Your task to perform on an android device: turn on sleep mode Image 0: 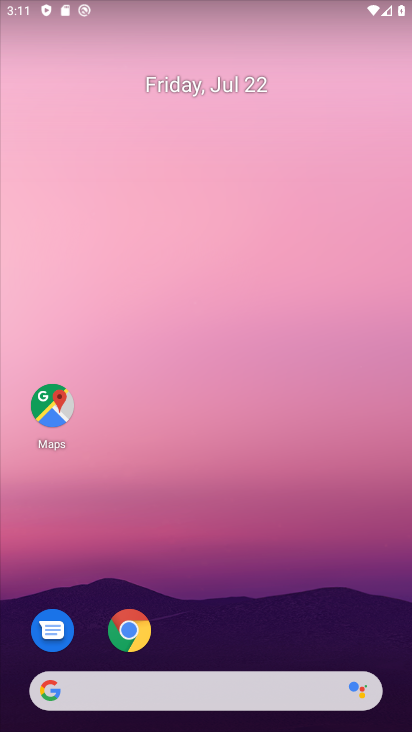
Step 0: drag from (269, 640) to (219, 87)
Your task to perform on an android device: turn on sleep mode Image 1: 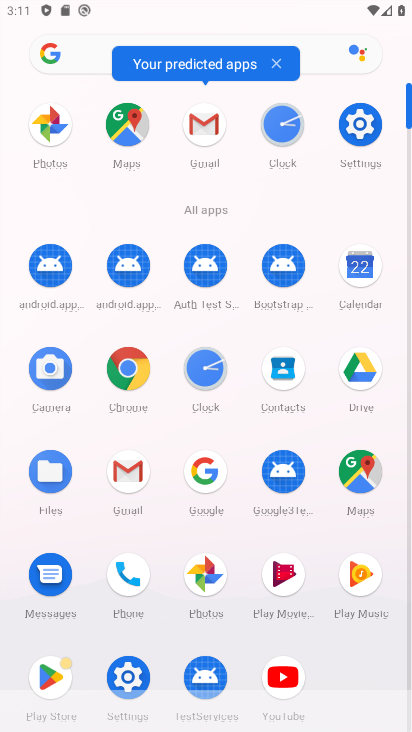
Step 1: click (335, 138)
Your task to perform on an android device: turn on sleep mode Image 2: 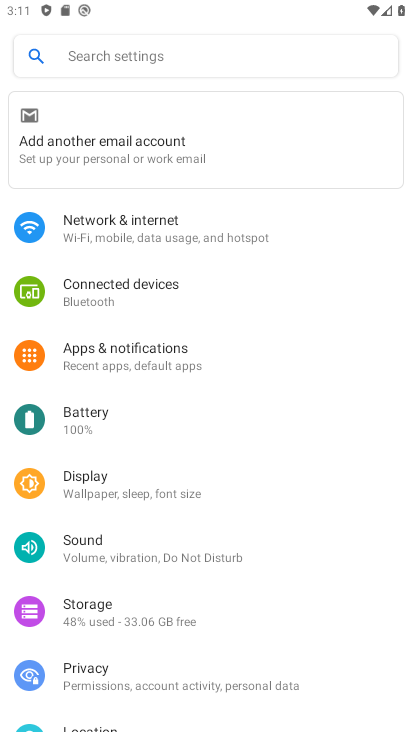
Step 2: click (103, 484)
Your task to perform on an android device: turn on sleep mode Image 3: 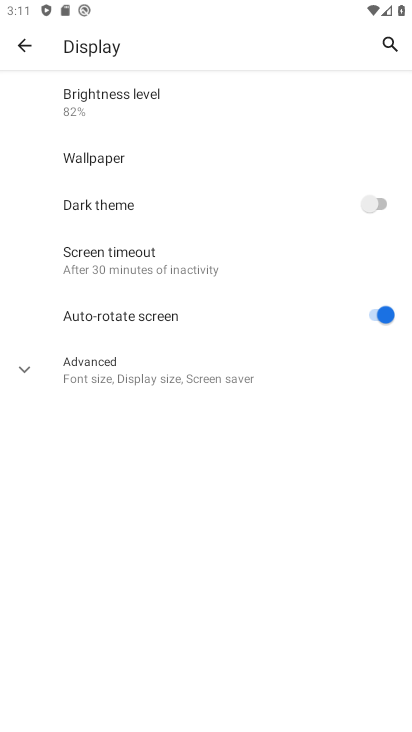
Step 3: click (297, 367)
Your task to perform on an android device: turn on sleep mode Image 4: 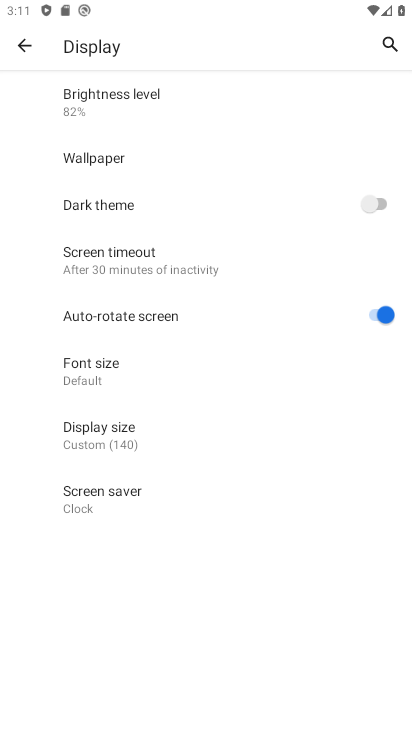
Step 4: task complete